Your task to perform on an android device: turn on javascript in the chrome app Image 0: 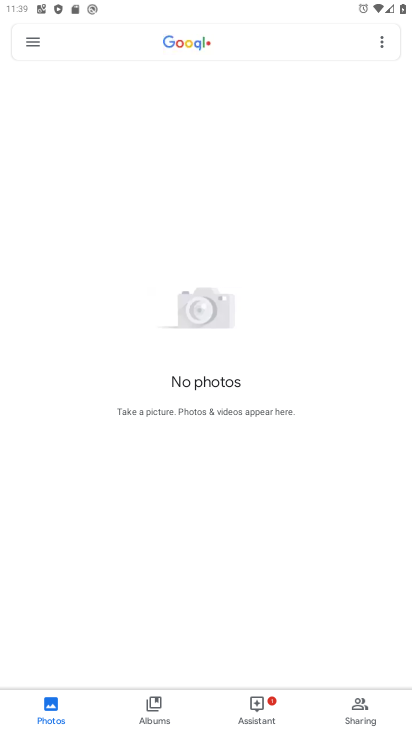
Step 0: press home button
Your task to perform on an android device: turn on javascript in the chrome app Image 1: 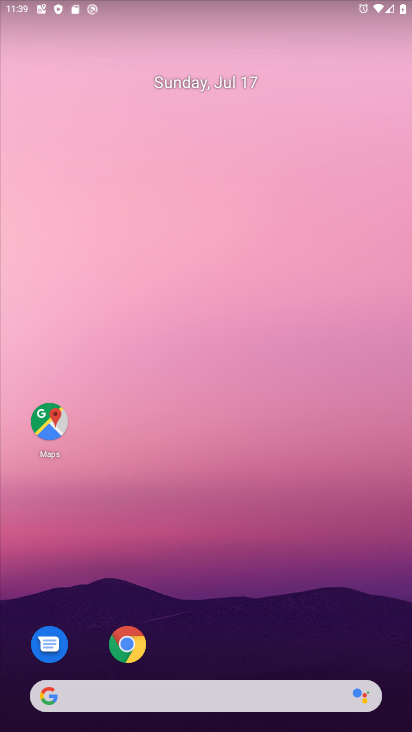
Step 1: drag from (264, 633) to (222, 128)
Your task to perform on an android device: turn on javascript in the chrome app Image 2: 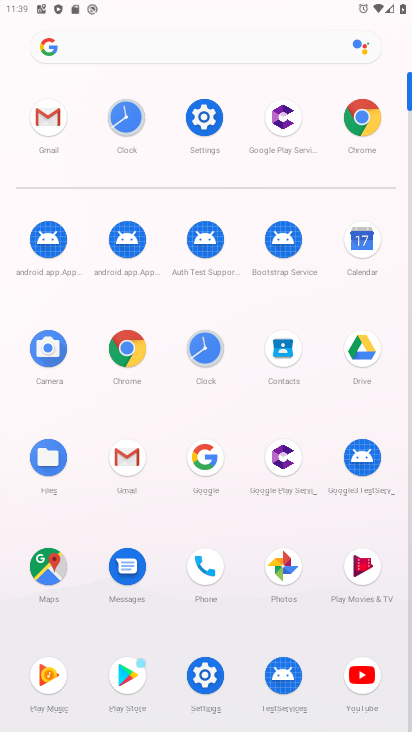
Step 2: click (365, 112)
Your task to perform on an android device: turn on javascript in the chrome app Image 3: 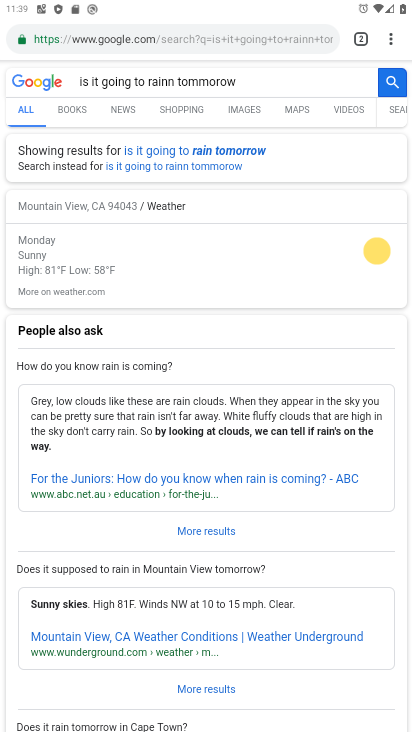
Step 3: drag from (390, 41) to (247, 425)
Your task to perform on an android device: turn on javascript in the chrome app Image 4: 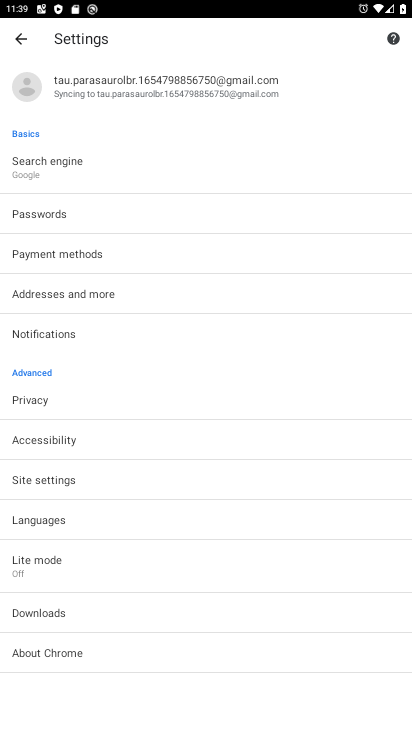
Step 4: click (45, 491)
Your task to perform on an android device: turn on javascript in the chrome app Image 5: 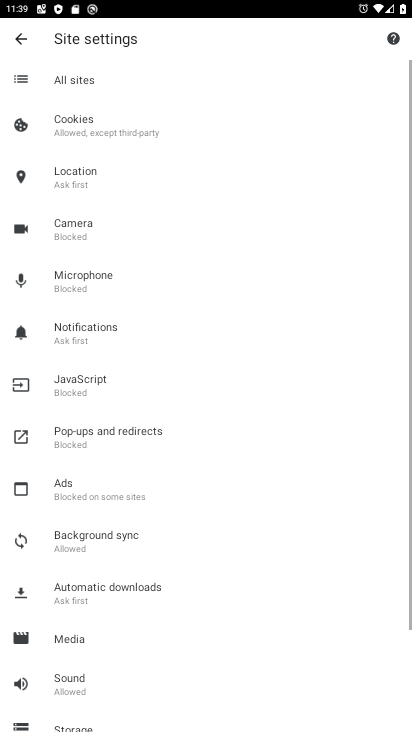
Step 5: click (95, 381)
Your task to perform on an android device: turn on javascript in the chrome app Image 6: 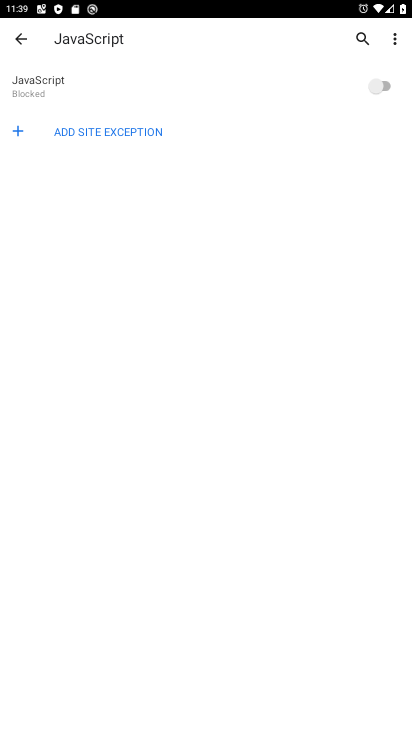
Step 6: click (371, 84)
Your task to perform on an android device: turn on javascript in the chrome app Image 7: 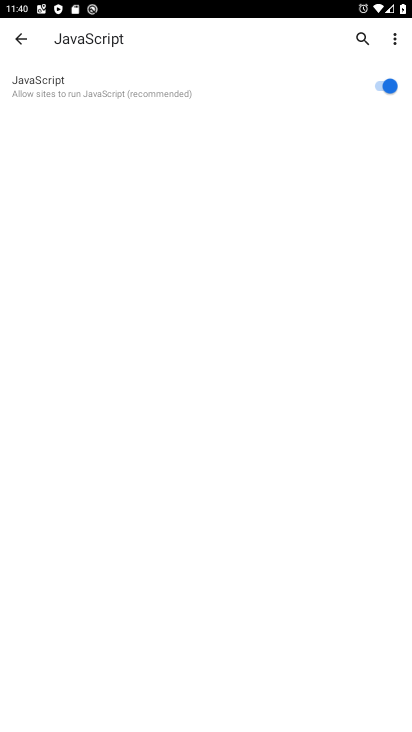
Step 7: task complete